Your task to perform on an android device: Go to wifi settings Image 0: 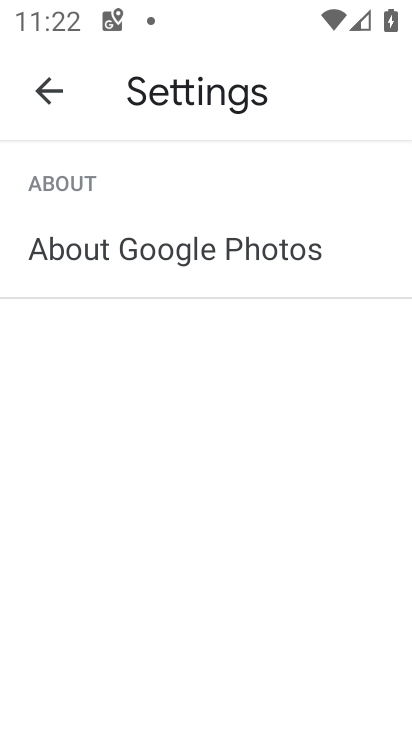
Step 0: press home button
Your task to perform on an android device: Go to wifi settings Image 1: 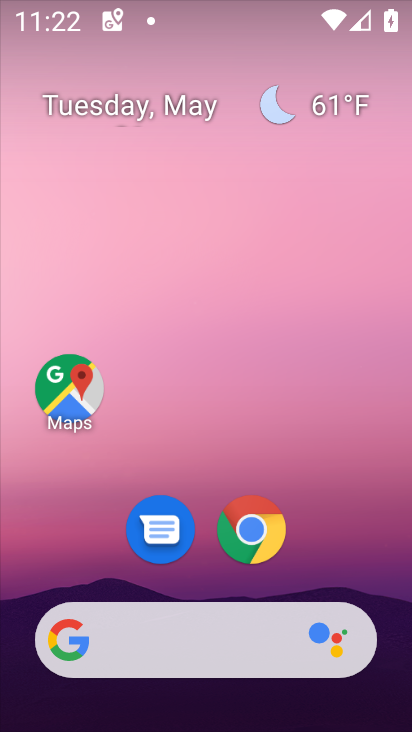
Step 1: drag from (323, 525) to (227, 111)
Your task to perform on an android device: Go to wifi settings Image 2: 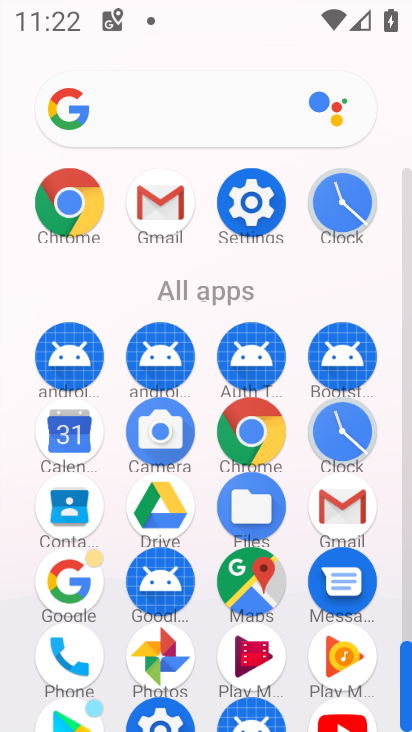
Step 2: click (249, 206)
Your task to perform on an android device: Go to wifi settings Image 3: 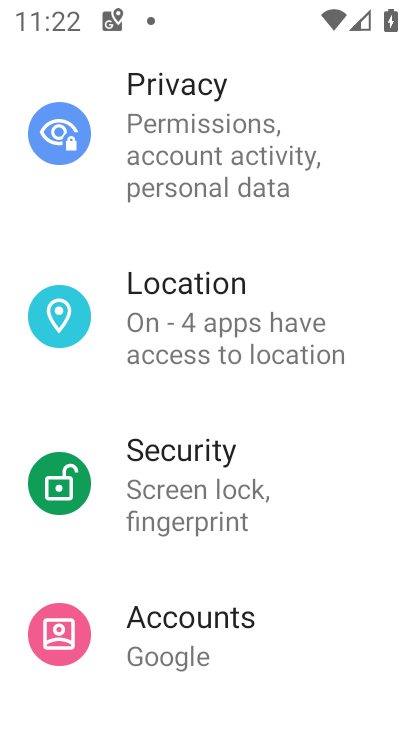
Step 3: drag from (249, 206) to (216, 564)
Your task to perform on an android device: Go to wifi settings Image 4: 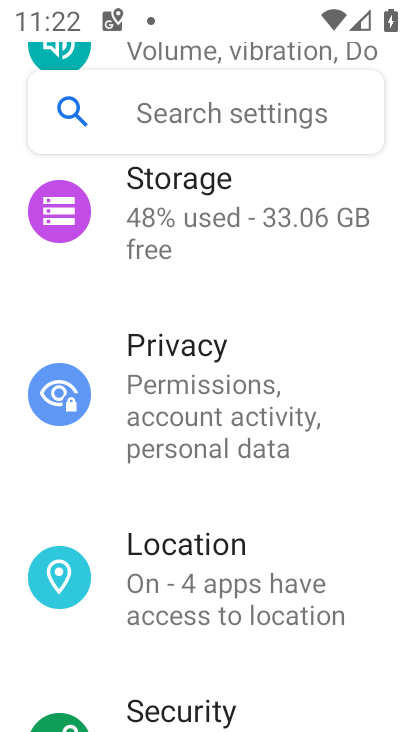
Step 4: drag from (251, 189) to (232, 662)
Your task to perform on an android device: Go to wifi settings Image 5: 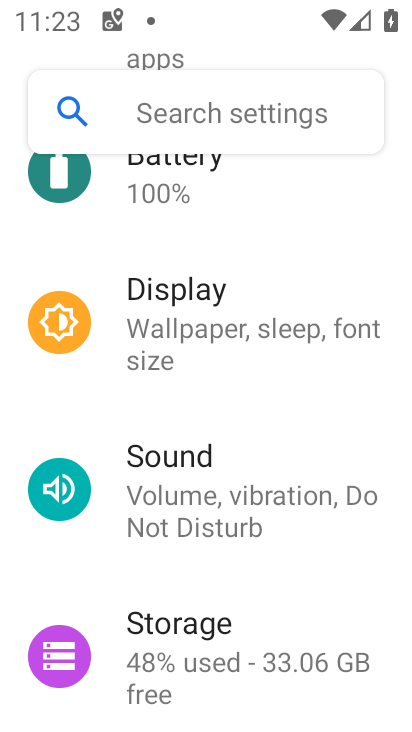
Step 5: drag from (242, 324) to (255, 706)
Your task to perform on an android device: Go to wifi settings Image 6: 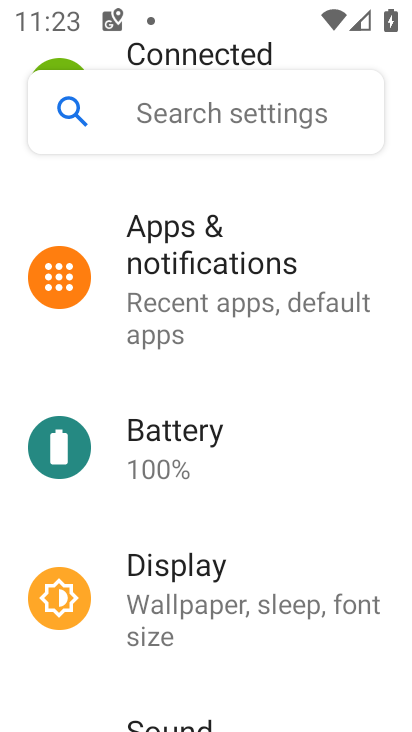
Step 6: drag from (229, 168) to (232, 690)
Your task to perform on an android device: Go to wifi settings Image 7: 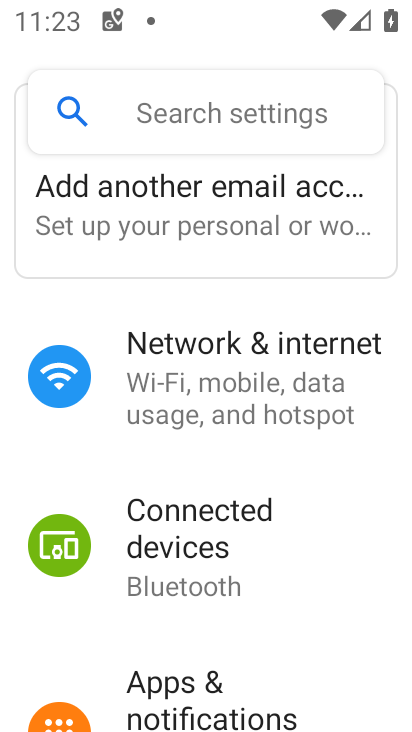
Step 7: click (187, 391)
Your task to perform on an android device: Go to wifi settings Image 8: 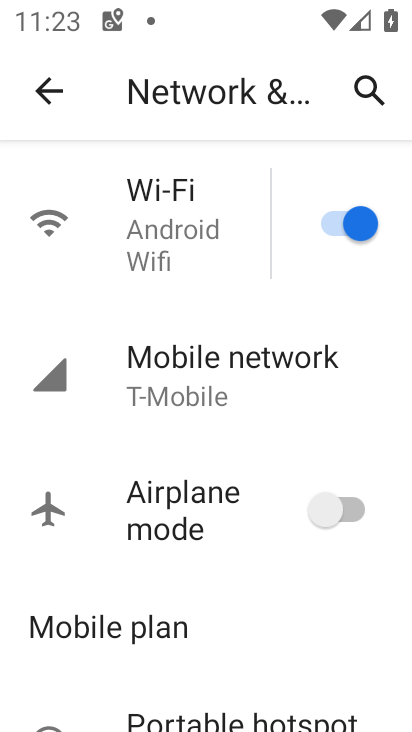
Step 8: click (182, 266)
Your task to perform on an android device: Go to wifi settings Image 9: 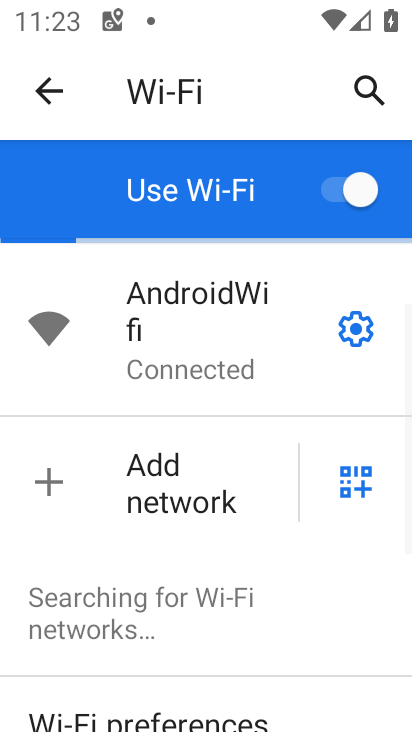
Step 9: task complete